Your task to perform on an android device: Check the weather Image 0: 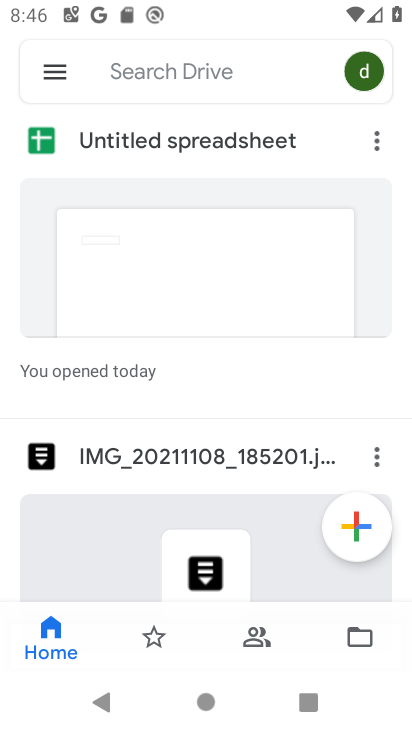
Step 0: press home button
Your task to perform on an android device: Check the weather Image 1: 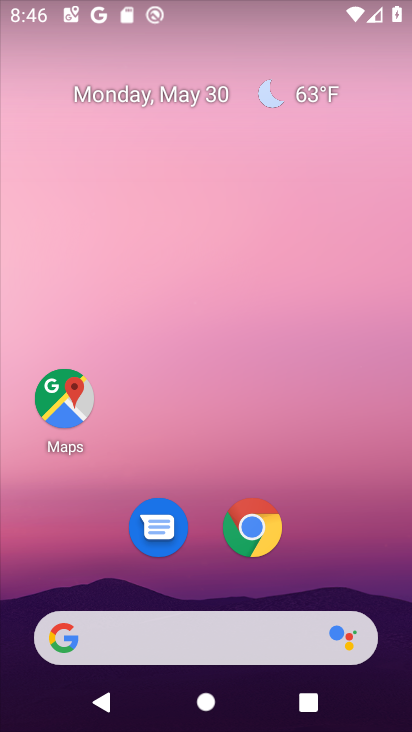
Step 1: drag from (303, 581) to (313, 238)
Your task to perform on an android device: Check the weather Image 2: 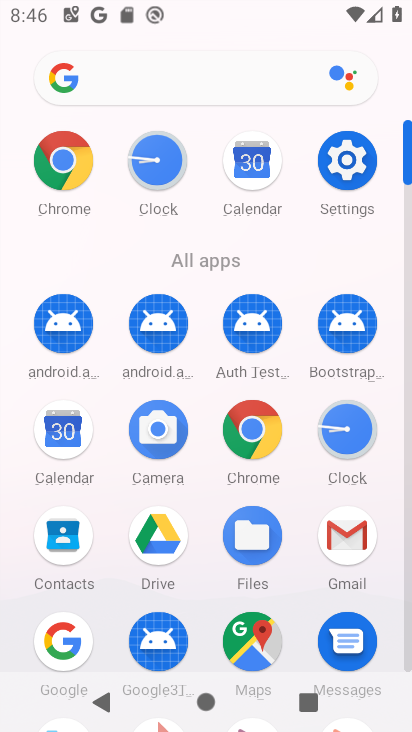
Step 2: click (73, 153)
Your task to perform on an android device: Check the weather Image 3: 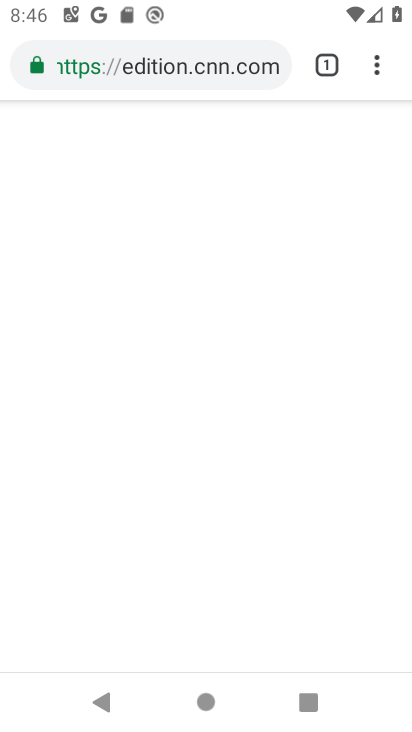
Step 3: click (371, 60)
Your task to perform on an android device: Check the weather Image 4: 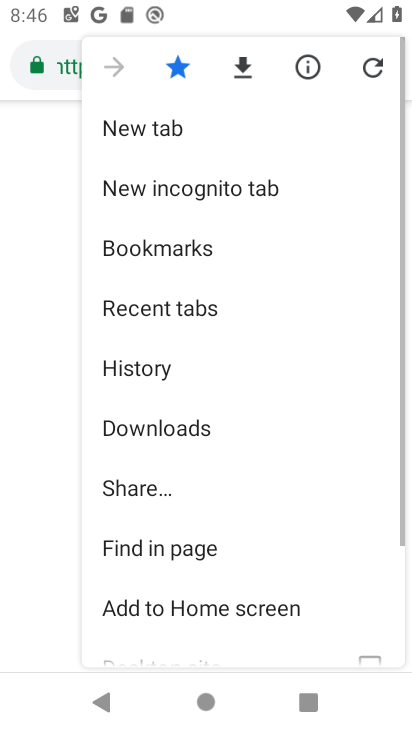
Step 4: click (195, 122)
Your task to perform on an android device: Check the weather Image 5: 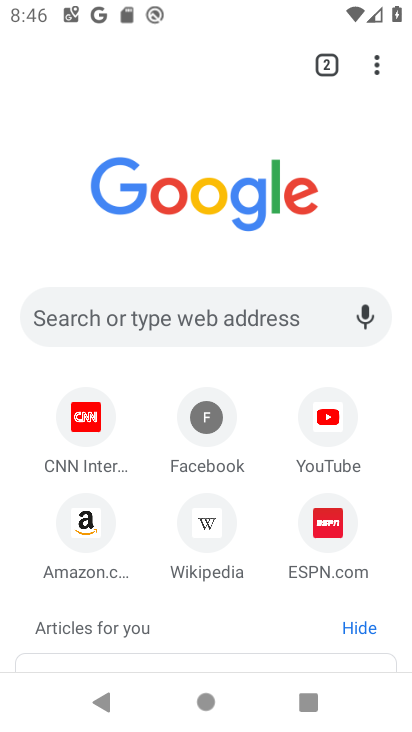
Step 5: click (233, 300)
Your task to perform on an android device: Check the weather Image 6: 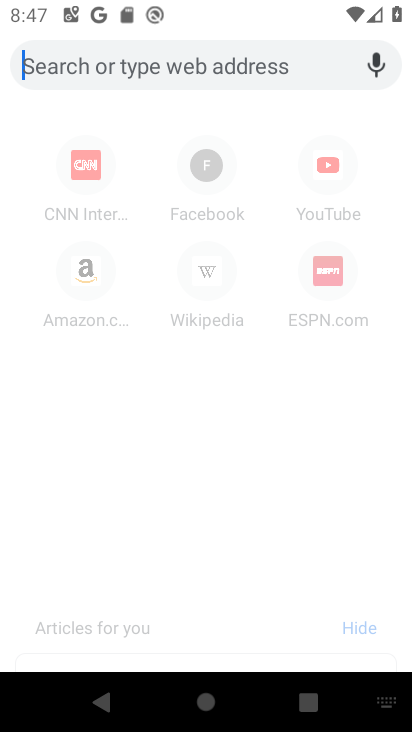
Step 6: type "Check the weather"
Your task to perform on an android device: Check the weather Image 7: 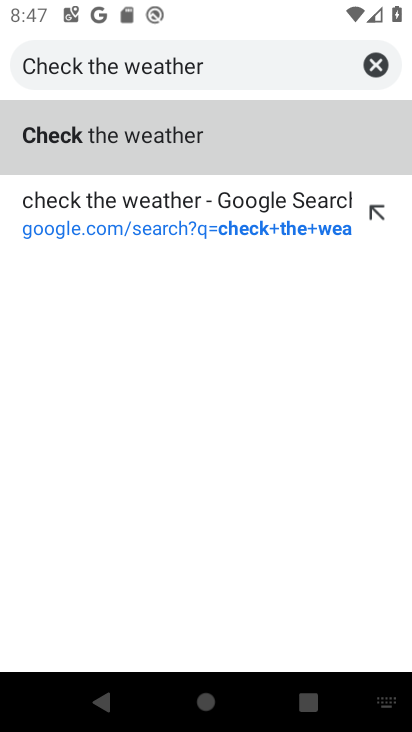
Step 7: click (132, 133)
Your task to perform on an android device: Check the weather Image 8: 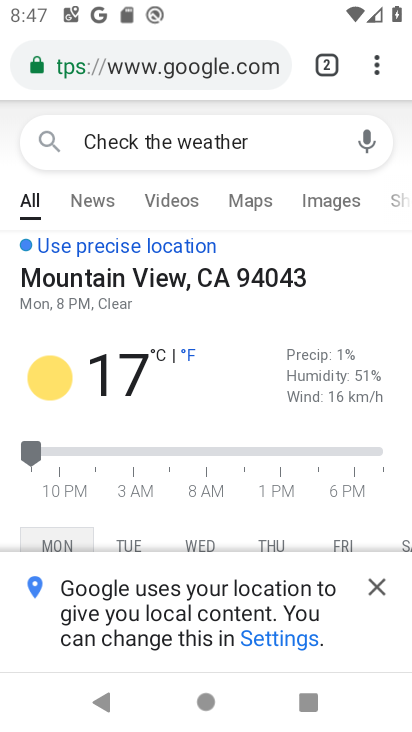
Step 8: task complete